Your task to perform on an android device: open a new tab in the chrome app Image 0: 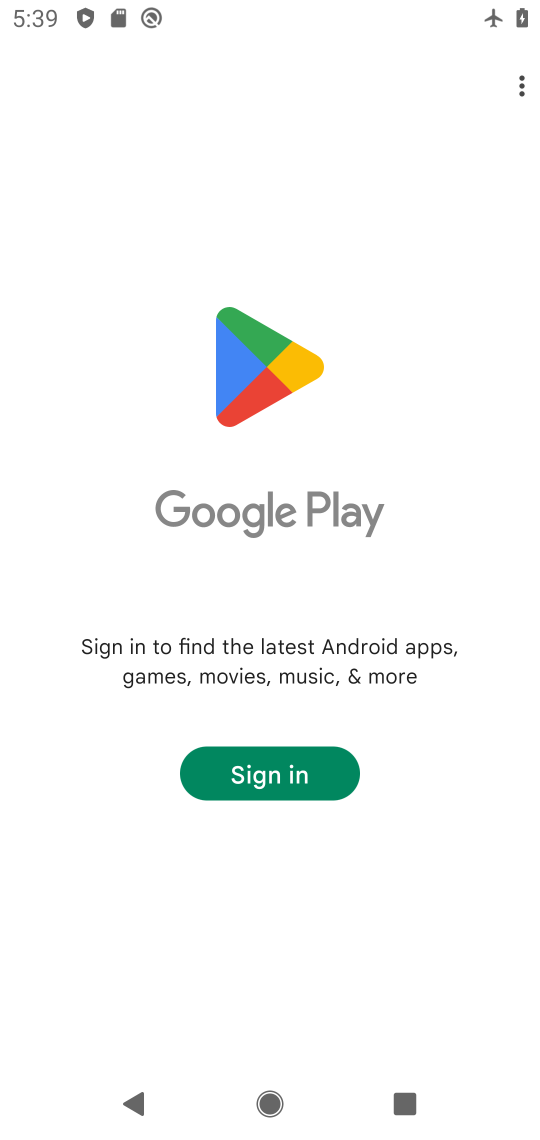
Step 0: press home button
Your task to perform on an android device: open a new tab in the chrome app Image 1: 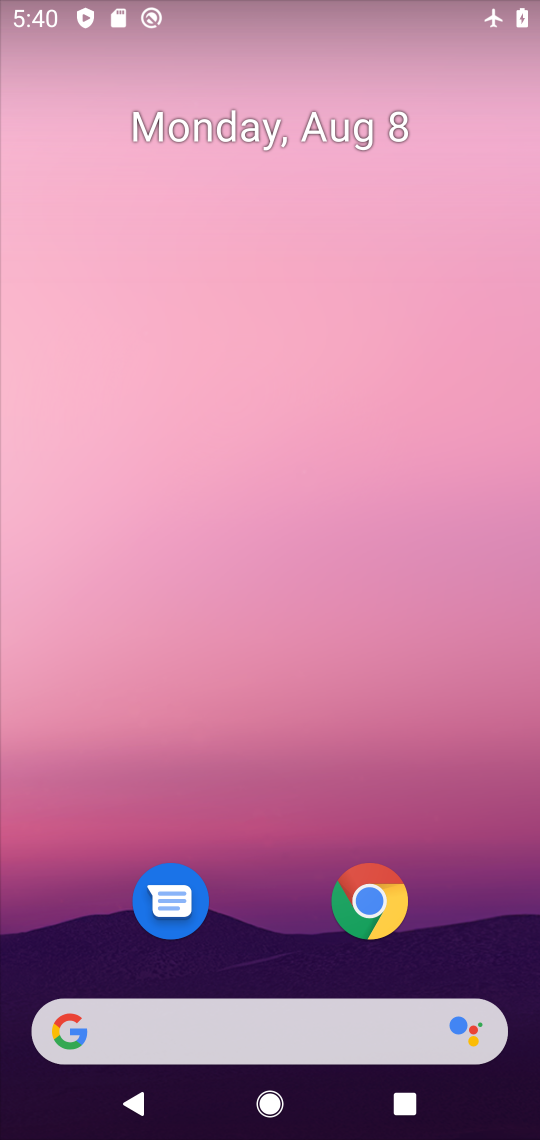
Step 1: click (397, 887)
Your task to perform on an android device: open a new tab in the chrome app Image 2: 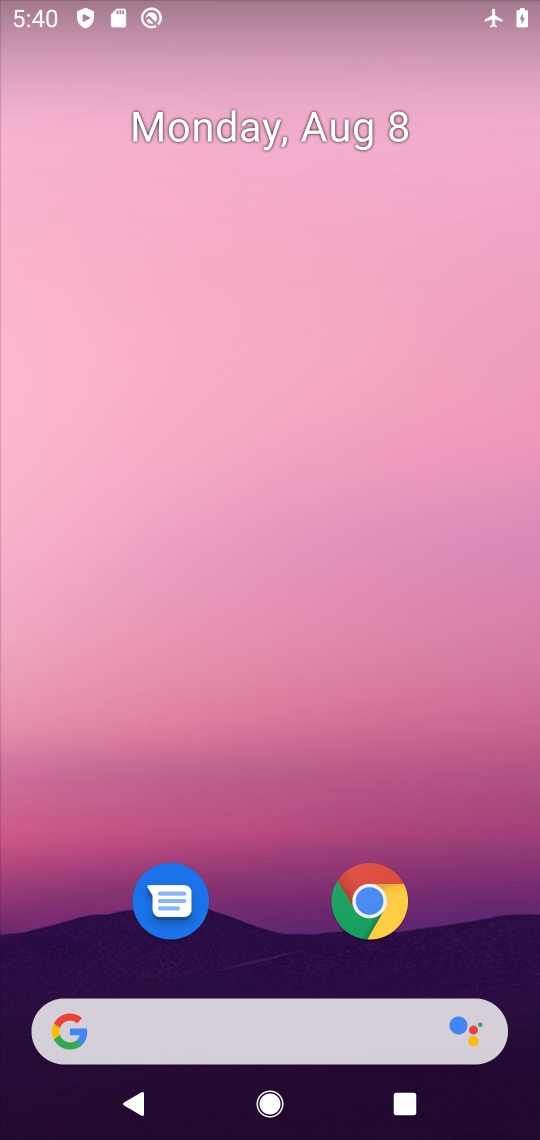
Step 2: click (397, 887)
Your task to perform on an android device: open a new tab in the chrome app Image 3: 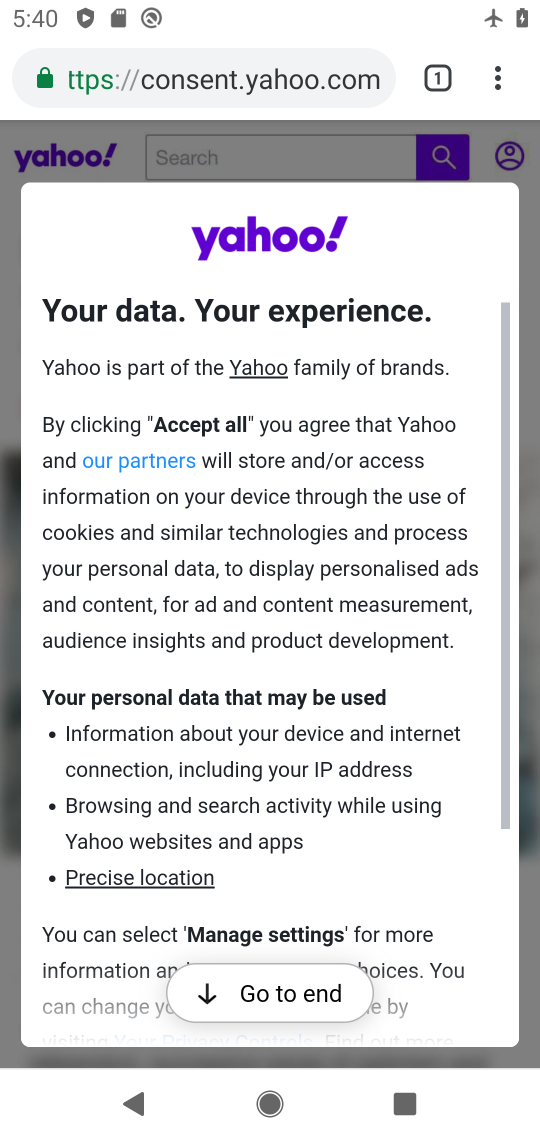
Step 3: click (507, 78)
Your task to perform on an android device: open a new tab in the chrome app Image 4: 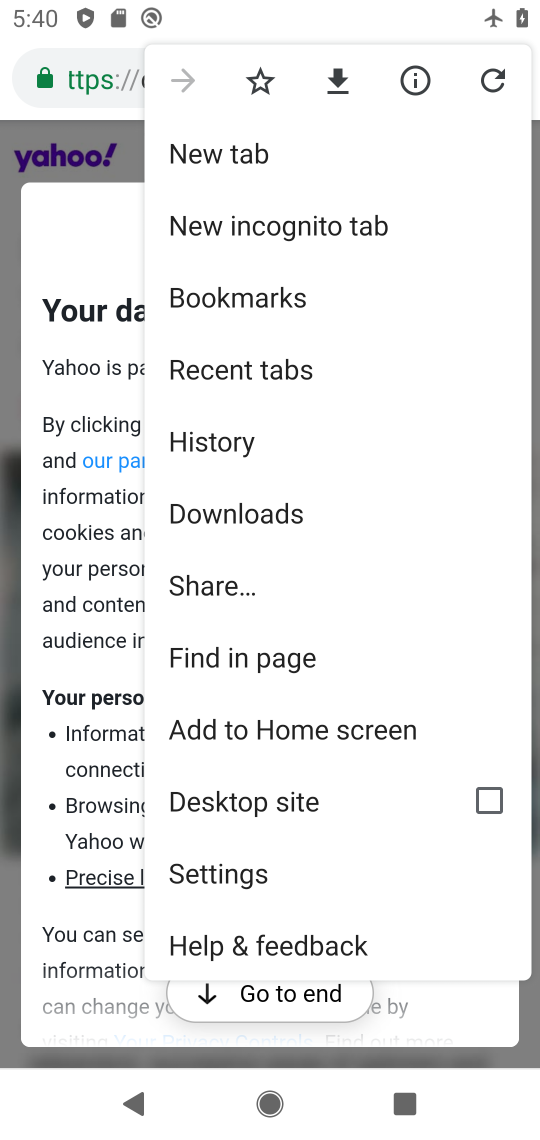
Step 4: click (352, 131)
Your task to perform on an android device: open a new tab in the chrome app Image 5: 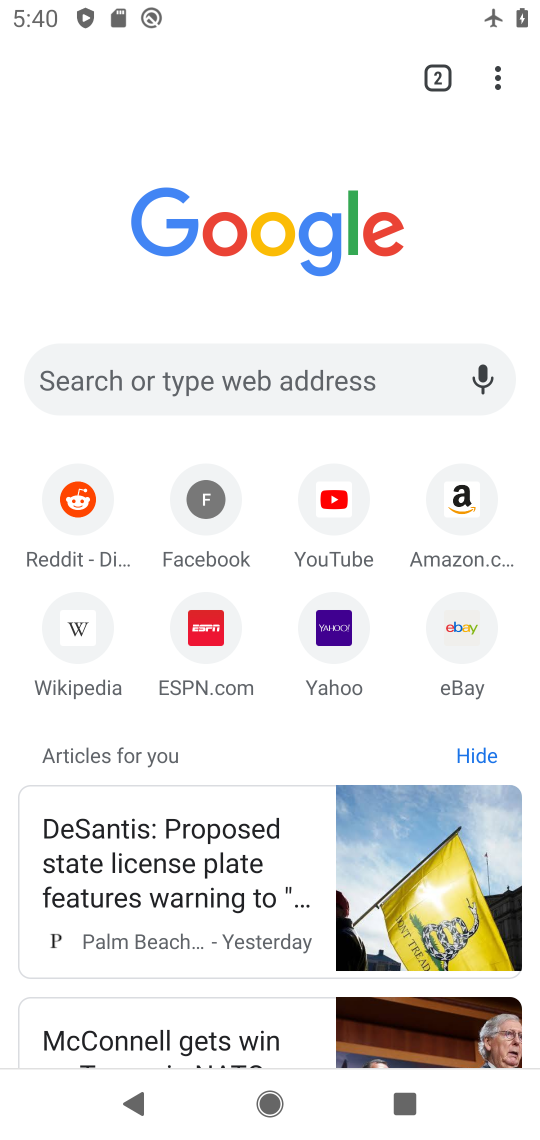
Step 5: task complete